Your task to perform on an android device: turn on location history Image 0: 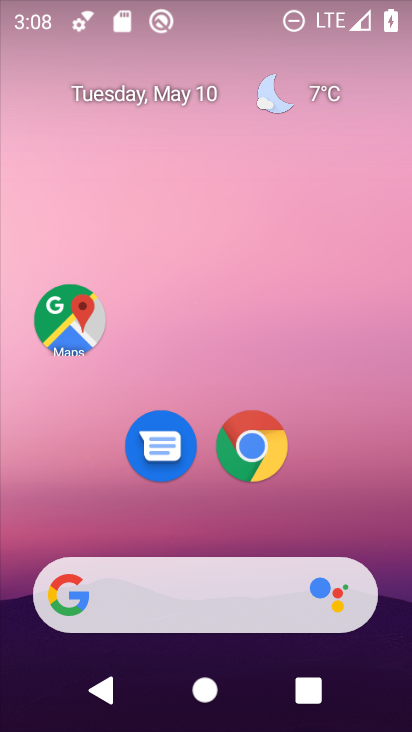
Step 0: drag from (236, 528) to (220, 40)
Your task to perform on an android device: turn on location history Image 1: 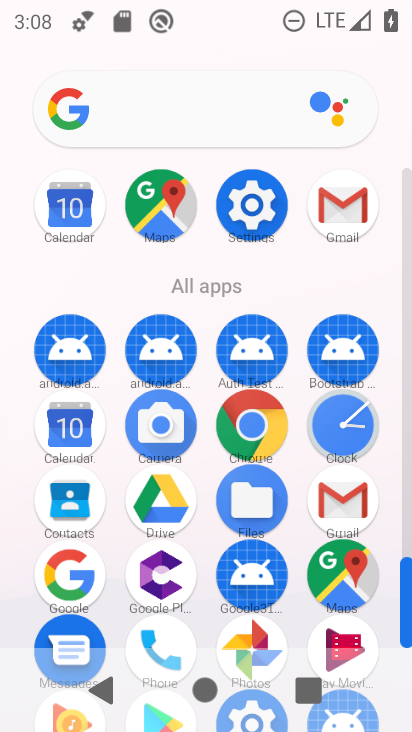
Step 1: click (253, 212)
Your task to perform on an android device: turn on location history Image 2: 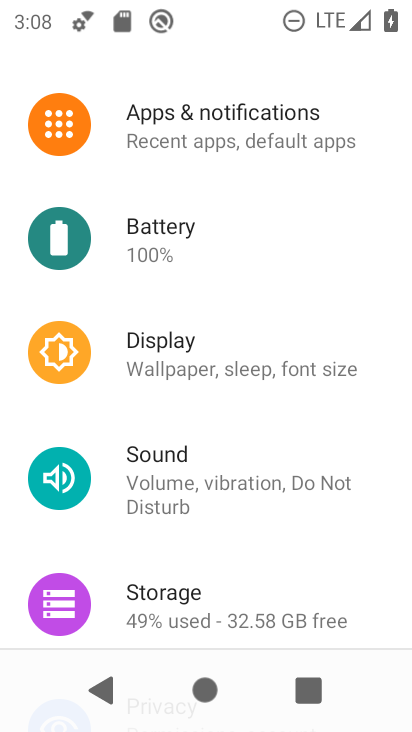
Step 2: drag from (239, 534) to (226, 172)
Your task to perform on an android device: turn on location history Image 3: 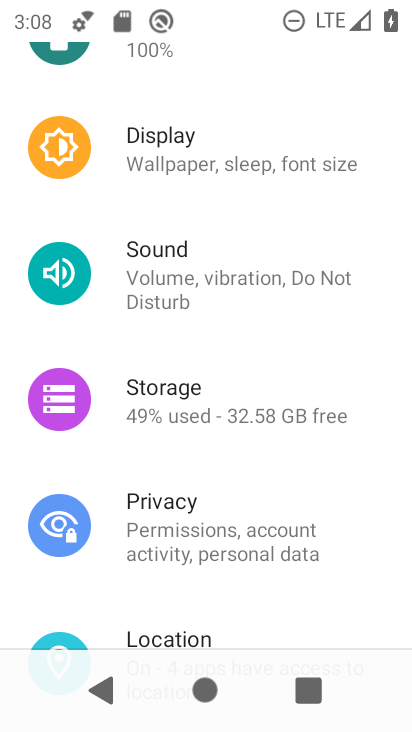
Step 3: drag from (230, 568) to (252, 203)
Your task to perform on an android device: turn on location history Image 4: 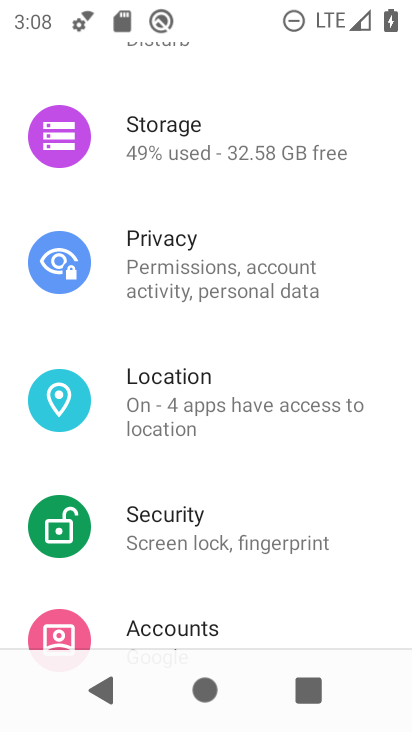
Step 4: click (202, 382)
Your task to perform on an android device: turn on location history Image 5: 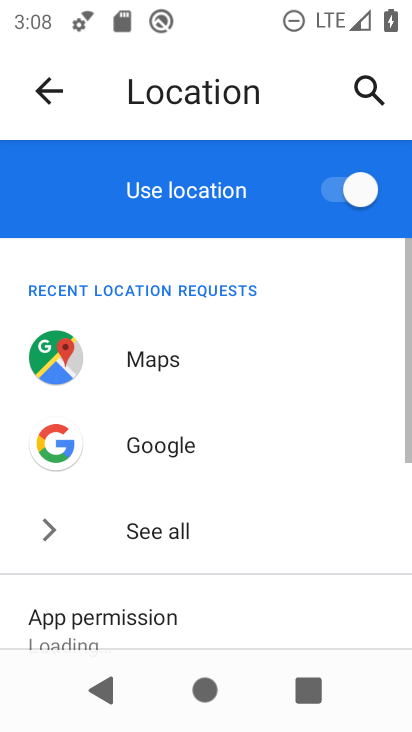
Step 5: drag from (257, 478) to (259, 158)
Your task to perform on an android device: turn on location history Image 6: 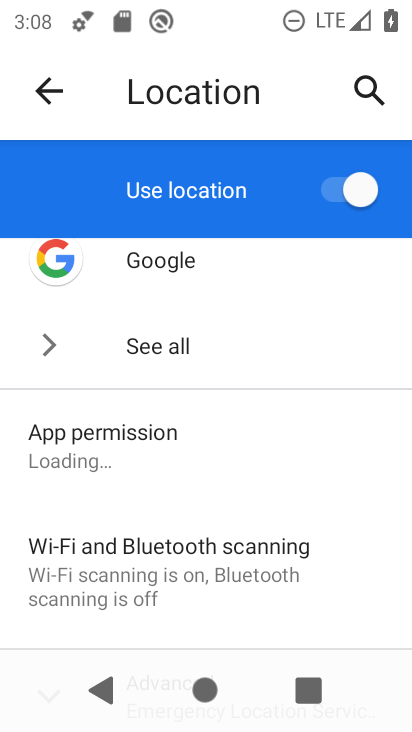
Step 6: drag from (244, 541) to (247, 225)
Your task to perform on an android device: turn on location history Image 7: 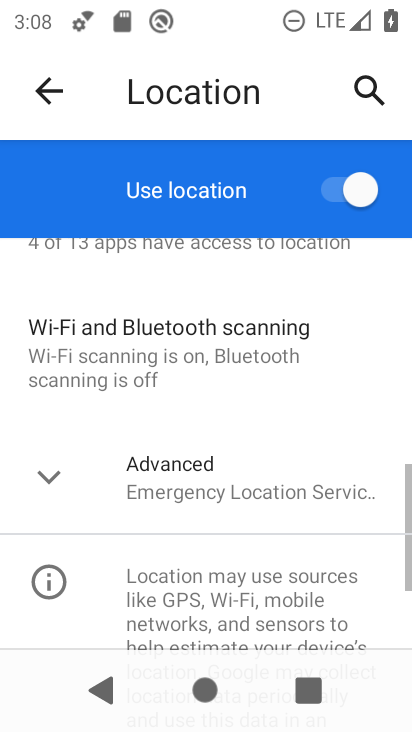
Step 7: click (214, 486)
Your task to perform on an android device: turn on location history Image 8: 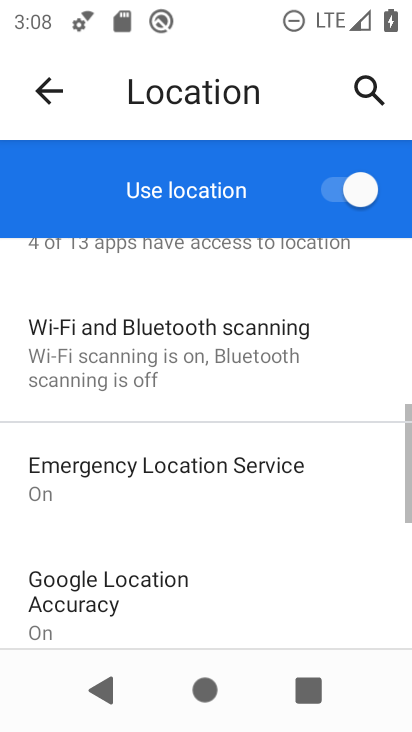
Step 8: drag from (237, 554) to (234, 241)
Your task to perform on an android device: turn on location history Image 9: 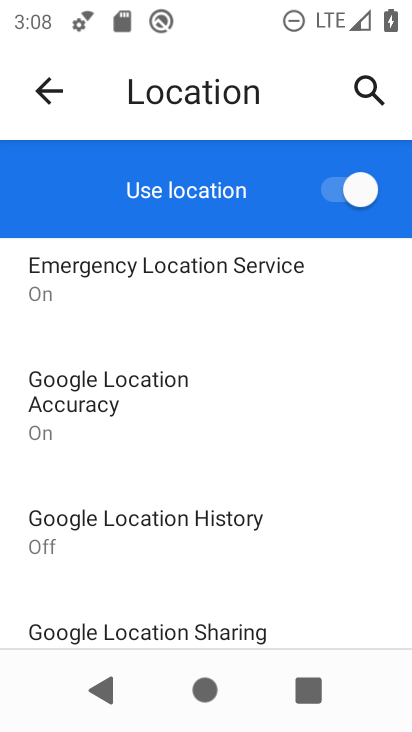
Step 9: click (210, 516)
Your task to perform on an android device: turn on location history Image 10: 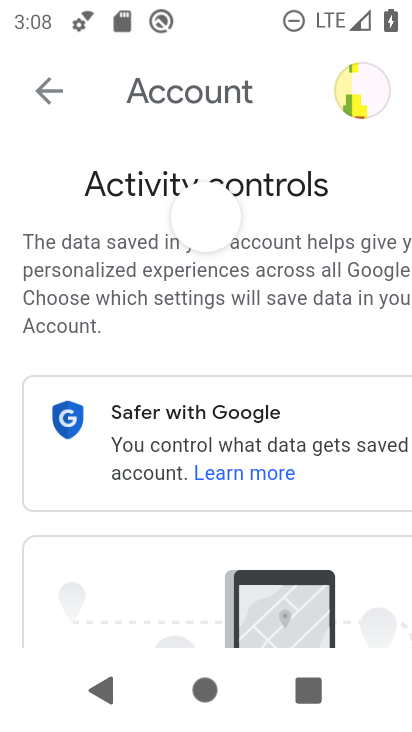
Step 10: drag from (189, 571) to (230, 215)
Your task to perform on an android device: turn on location history Image 11: 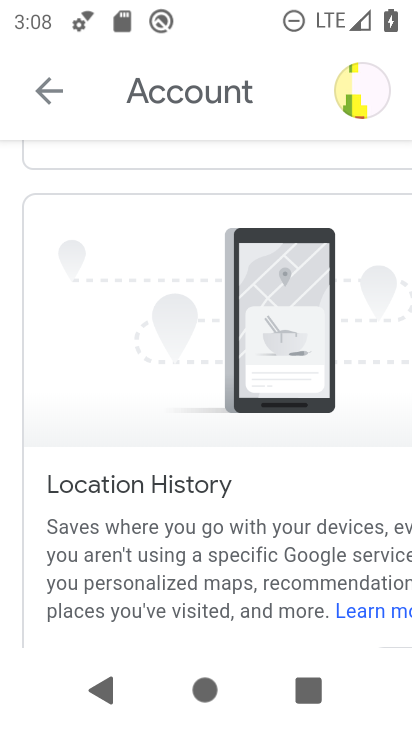
Step 11: drag from (189, 531) to (217, 253)
Your task to perform on an android device: turn on location history Image 12: 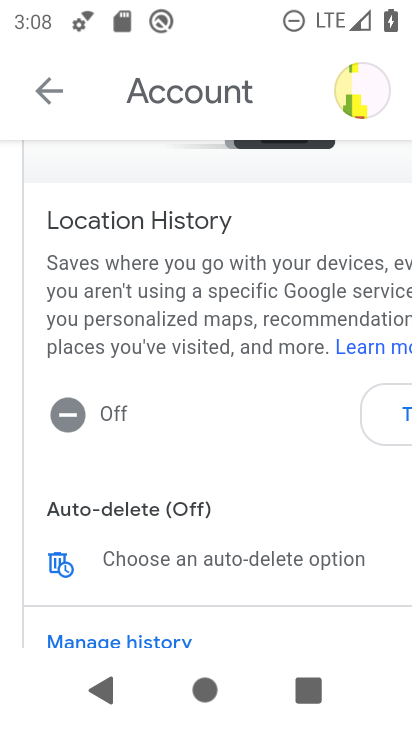
Step 12: drag from (278, 407) to (149, 447)
Your task to perform on an android device: turn on location history Image 13: 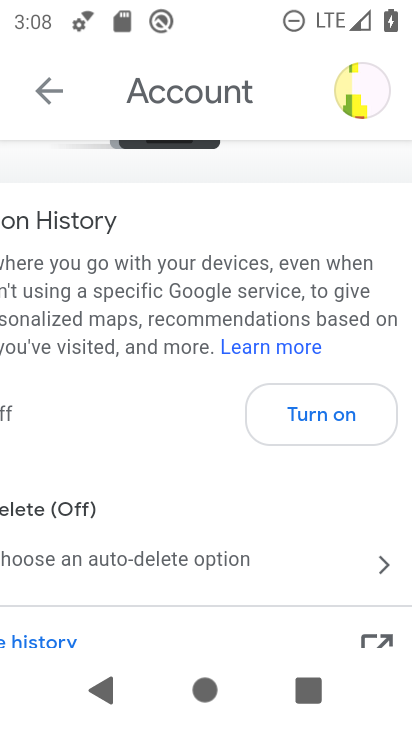
Step 13: click (311, 398)
Your task to perform on an android device: turn on location history Image 14: 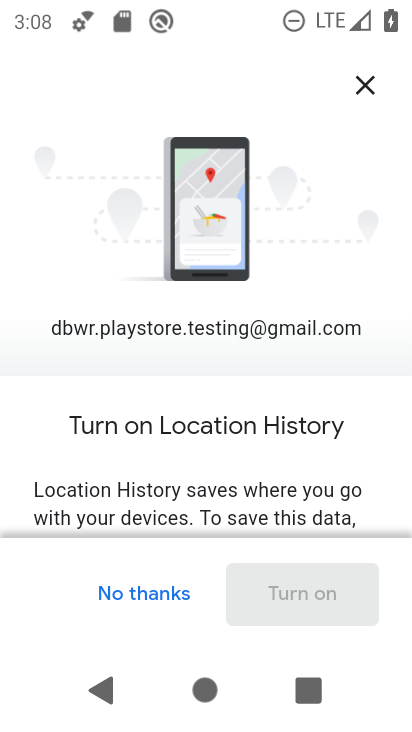
Step 14: drag from (222, 481) to (218, 151)
Your task to perform on an android device: turn on location history Image 15: 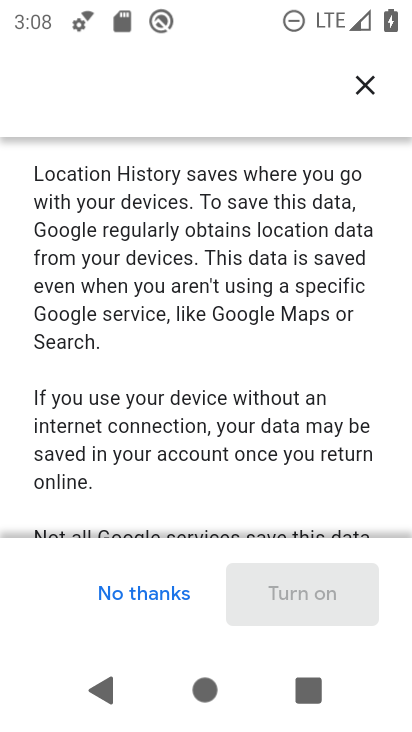
Step 15: drag from (199, 484) to (202, 152)
Your task to perform on an android device: turn on location history Image 16: 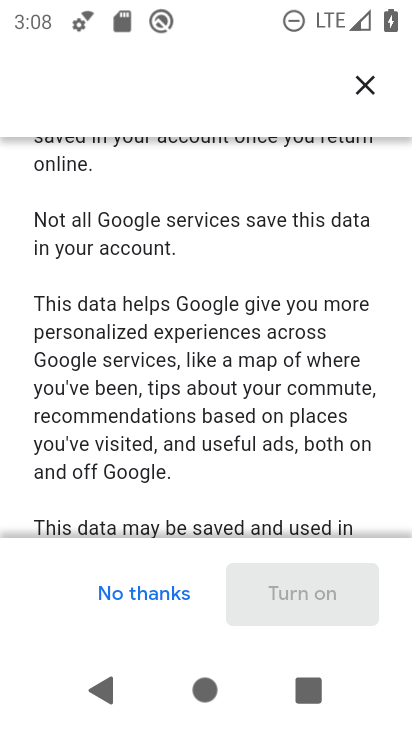
Step 16: drag from (194, 495) to (232, 178)
Your task to perform on an android device: turn on location history Image 17: 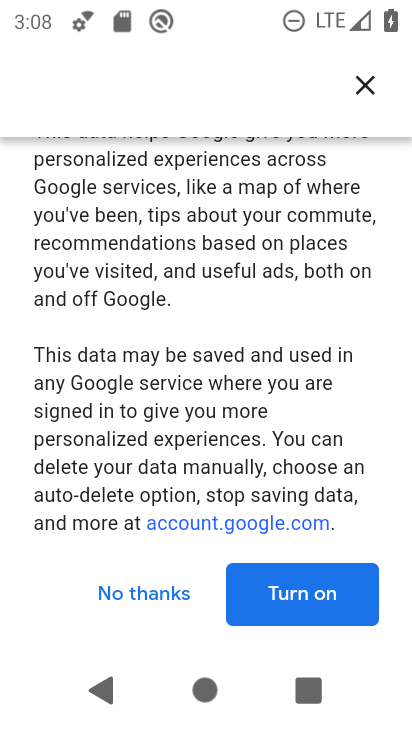
Step 17: click (286, 591)
Your task to perform on an android device: turn on location history Image 18: 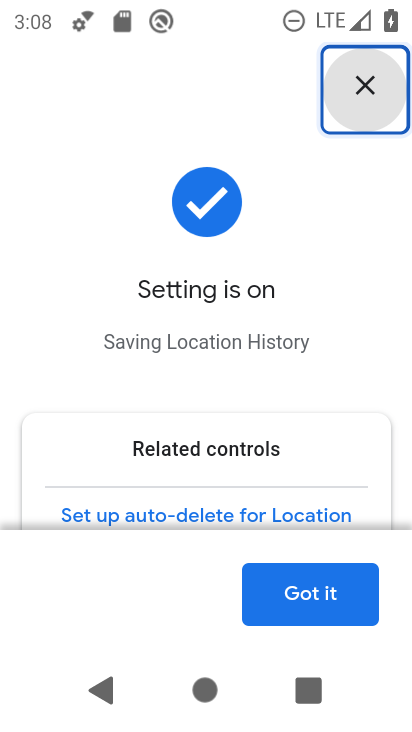
Step 18: click (317, 602)
Your task to perform on an android device: turn on location history Image 19: 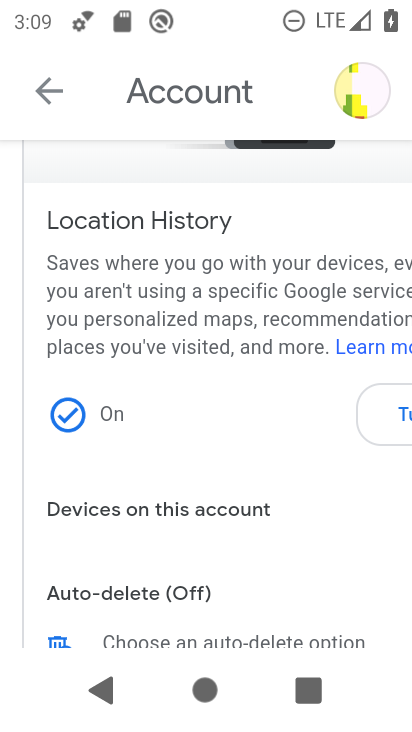
Step 19: task complete